Your task to perform on an android device: delete browsing data in the chrome app Image 0: 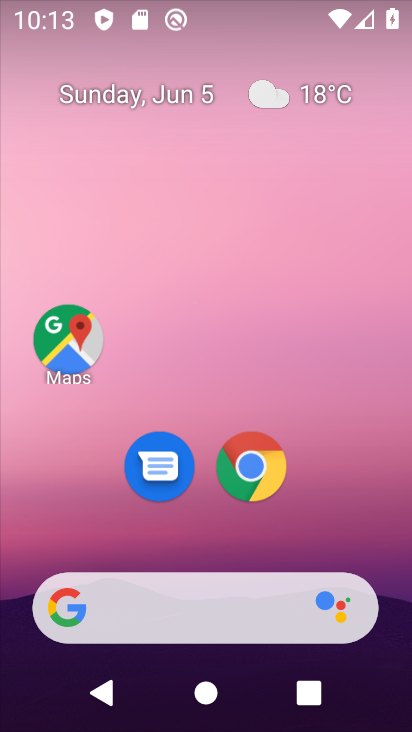
Step 0: click (250, 467)
Your task to perform on an android device: delete browsing data in the chrome app Image 1: 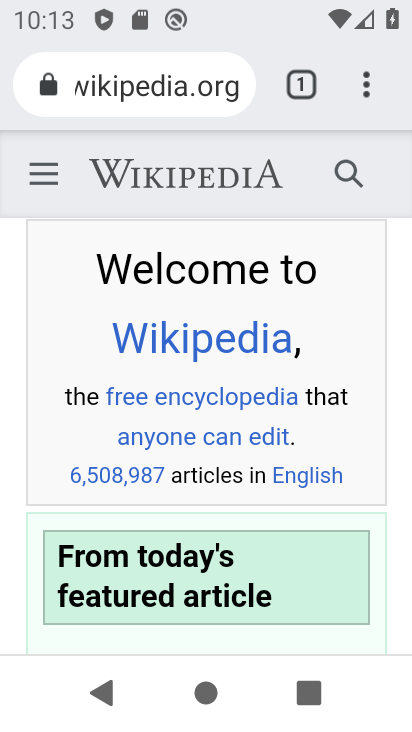
Step 1: click (366, 84)
Your task to perform on an android device: delete browsing data in the chrome app Image 2: 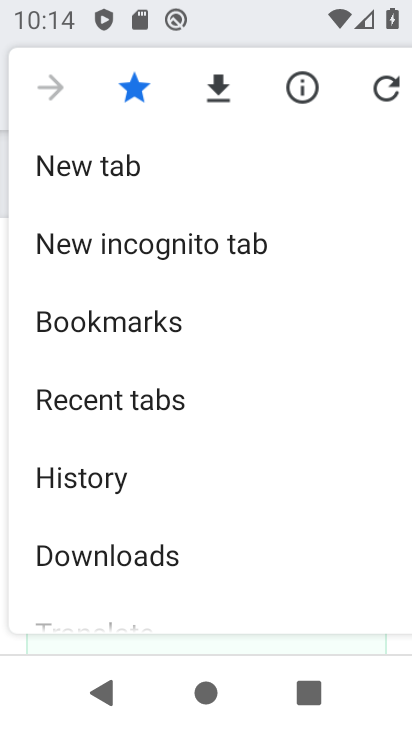
Step 2: drag from (73, 435) to (142, 299)
Your task to perform on an android device: delete browsing data in the chrome app Image 3: 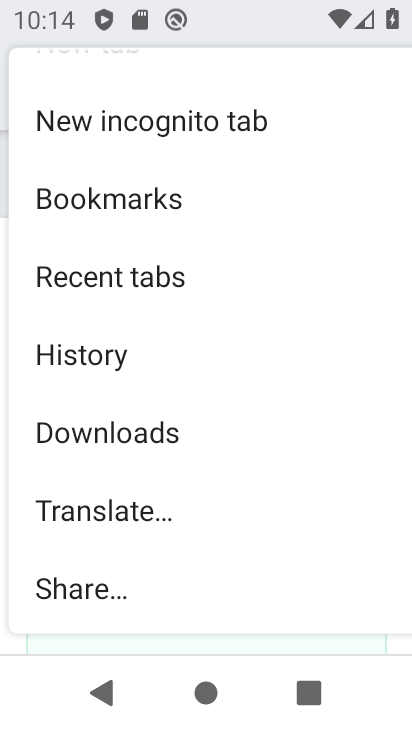
Step 3: drag from (106, 398) to (198, 272)
Your task to perform on an android device: delete browsing data in the chrome app Image 4: 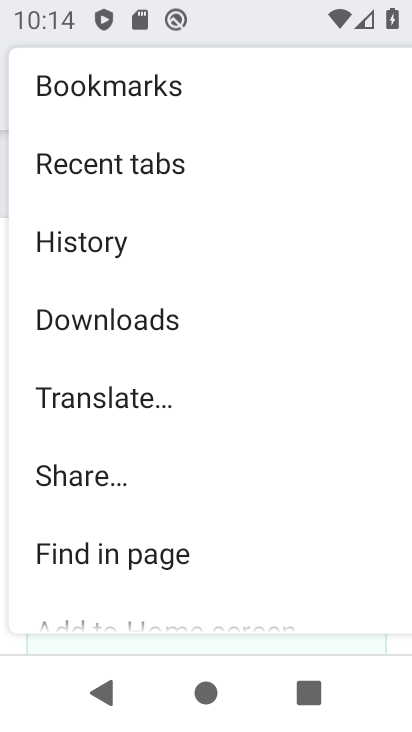
Step 4: drag from (150, 452) to (207, 351)
Your task to perform on an android device: delete browsing data in the chrome app Image 5: 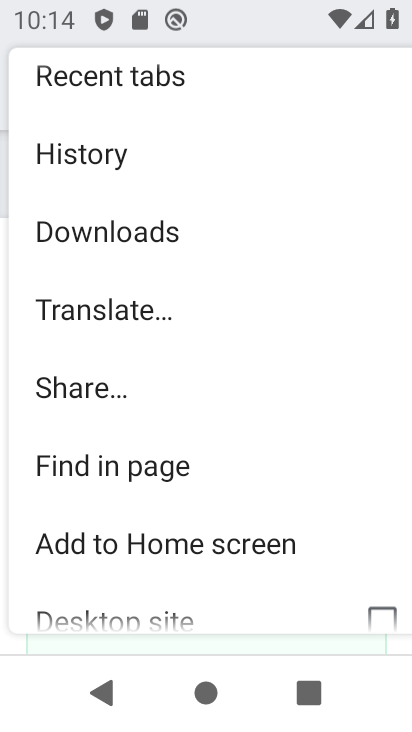
Step 5: drag from (133, 502) to (243, 380)
Your task to perform on an android device: delete browsing data in the chrome app Image 6: 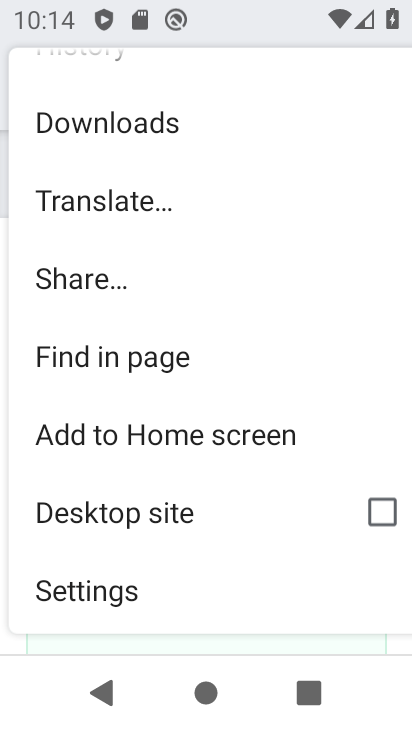
Step 6: drag from (157, 566) to (233, 438)
Your task to perform on an android device: delete browsing data in the chrome app Image 7: 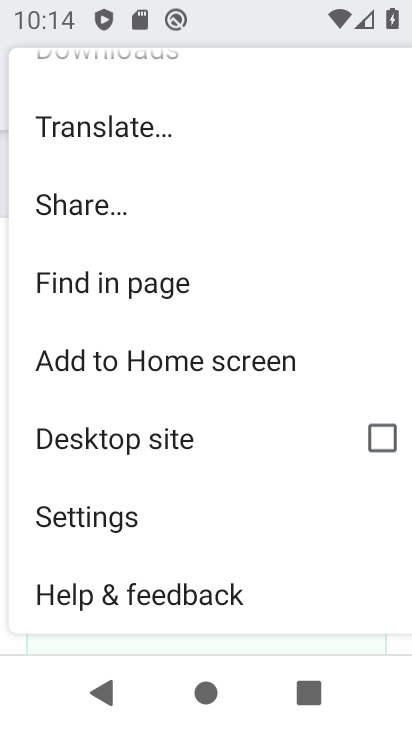
Step 7: click (131, 514)
Your task to perform on an android device: delete browsing data in the chrome app Image 8: 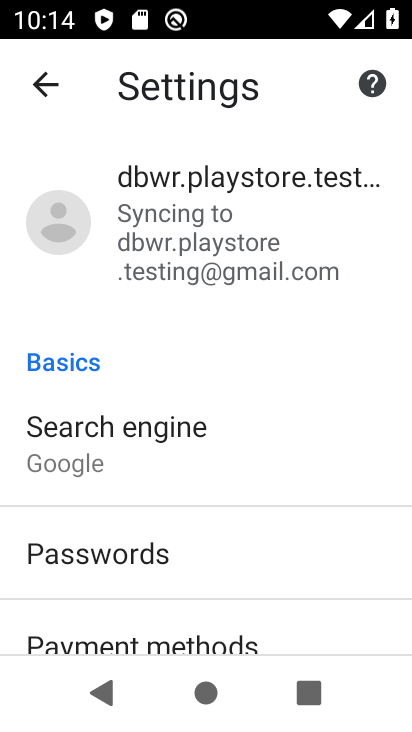
Step 8: drag from (218, 551) to (280, 414)
Your task to perform on an android device: delete browsing data in the chrome app Image 9: 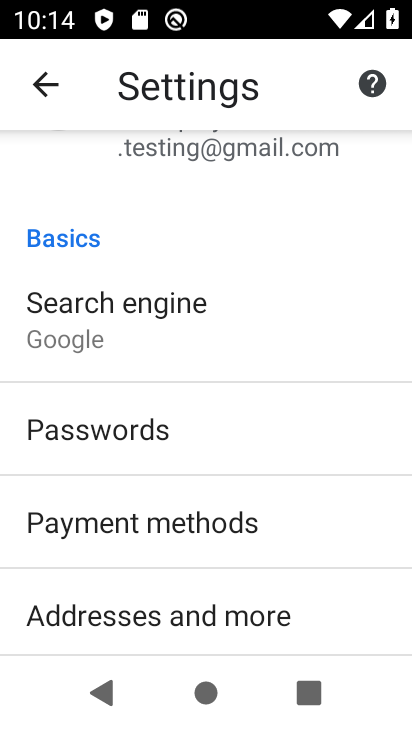
Step 9: drag from (201, 540) to (261, 422)
Your task to perform on an android device: delete browsing data in the chrome app Image 10: 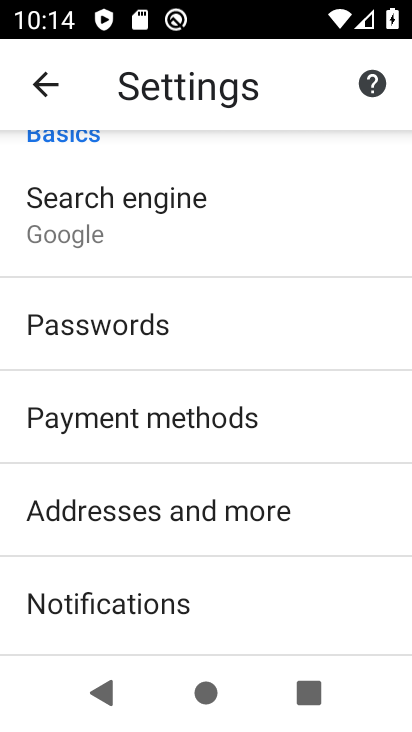
Step 10: drag from (166, 534) to (261, 421)
Your task to perform on an android device: delete browsing data in the chrome app Image 11: 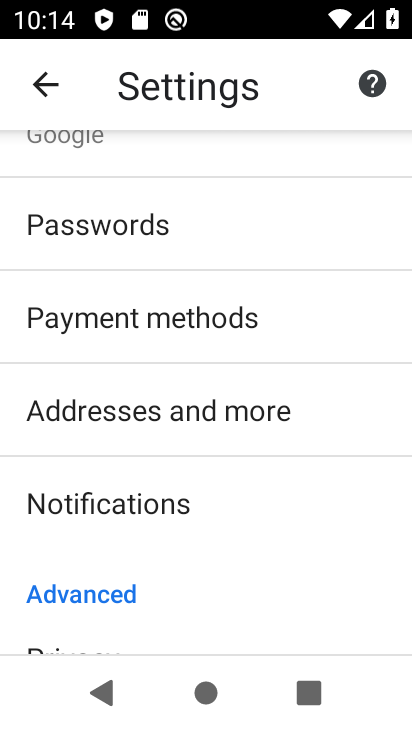
Step 11: drag from (166, 545) to (279, 409)
Your task to perform on an android device: delete browsing data in the chrome app Image 12: 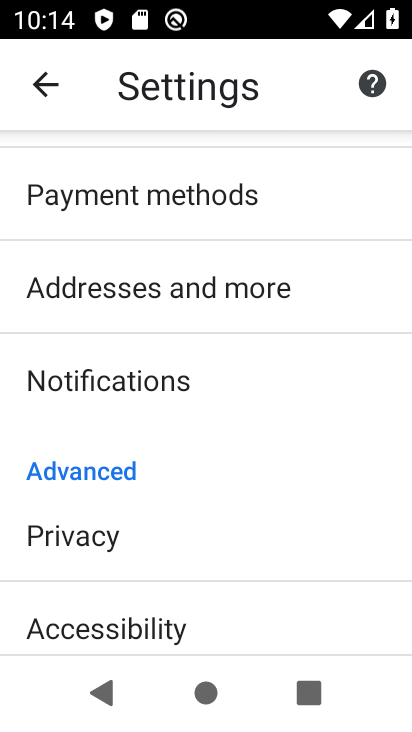
Step 12: click (109, 541)
Your task to perform on an android device: delete browsing data in the chrome app Image 13: 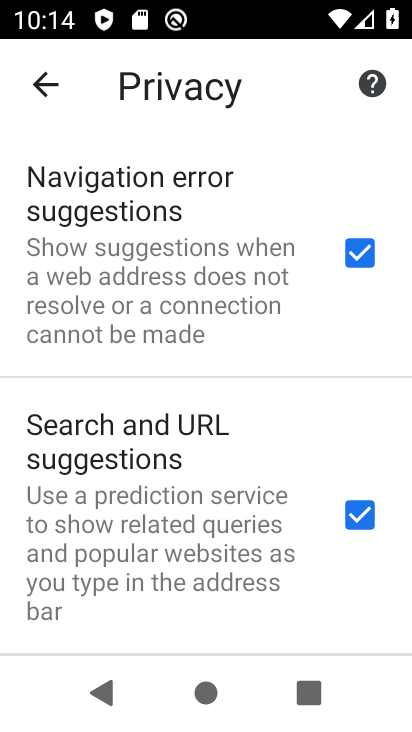
Step 13: drag from (178, 622) to (189, 428)
Your task to perform on an android device: delete browsing data in the chrome app Image 14: 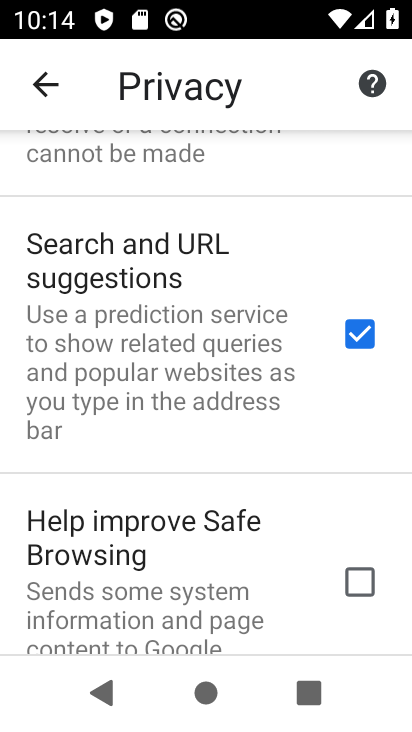
Step 14: drag from (157, 474) to (213, 349)
Your task to perform on an android device: delete browsing data in the chrome app Image 15: 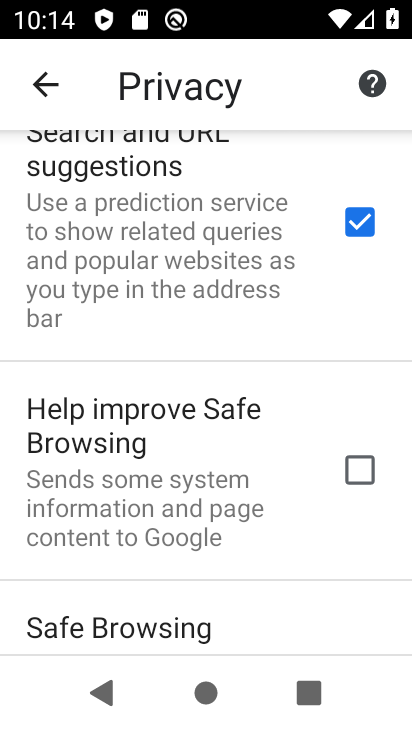
Step 15: drag from (156, 603) to (227, 461)
Your task to perform on an android device: delete browsing data in the chrome app Image 16: 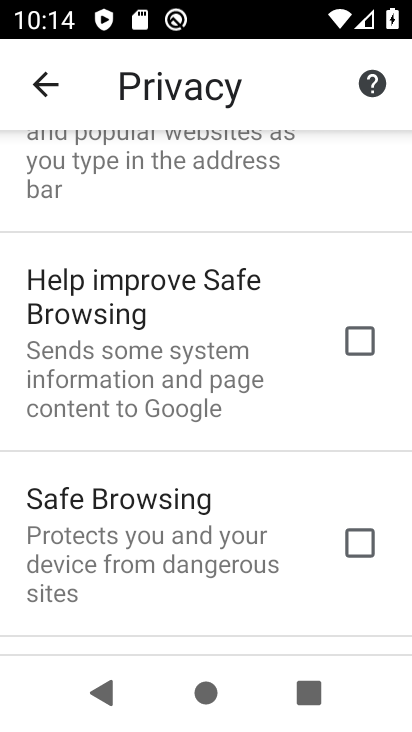
Step 16: drag from (159, 604) to (231, 446)
Your task to perform on an android device: delete browsing data in the chrome app Image 17: 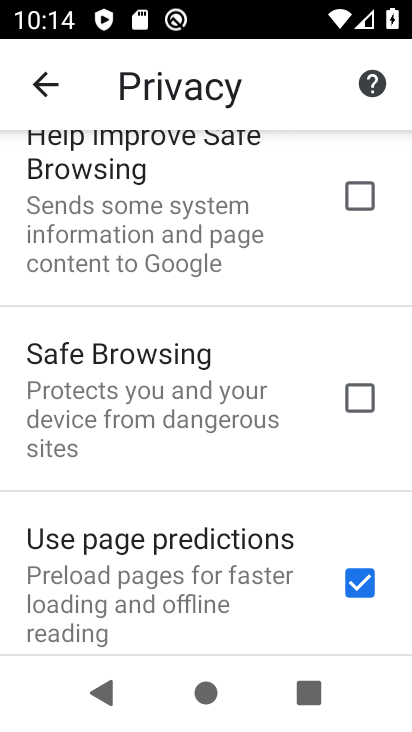
Step 17: drag from (193, 630) to (271, 475)
Your task to perform on an android device: delete browsing data in the chrome app Image 18: 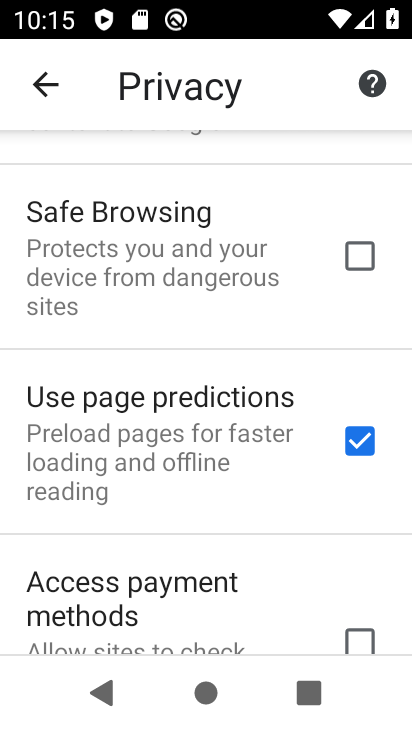
Step 18: drag from (200, 567) to (286, 444)
Your task to perform on an android device: delete browsing data in the chrome app Image 19: 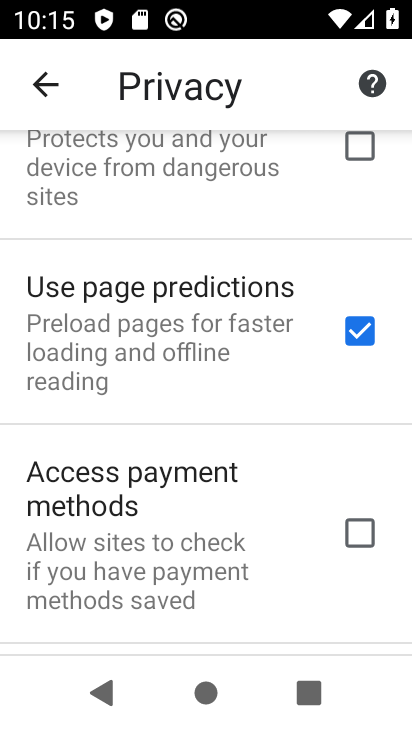
Step 19: drag from (174, 616) to (297, 457)
Your task to perform on an android device: delete browsing data in the chrome app Image 20: 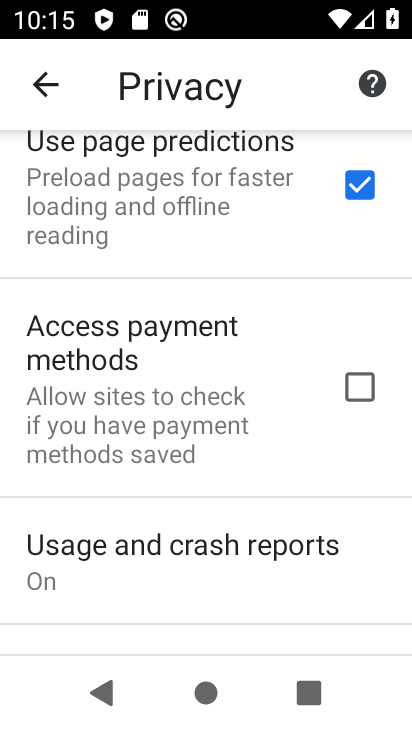
Step 20: drag from (208, 520) to (301, 367)
Your task to perform on an android device: delete browsing data in the chrome app Image 21: 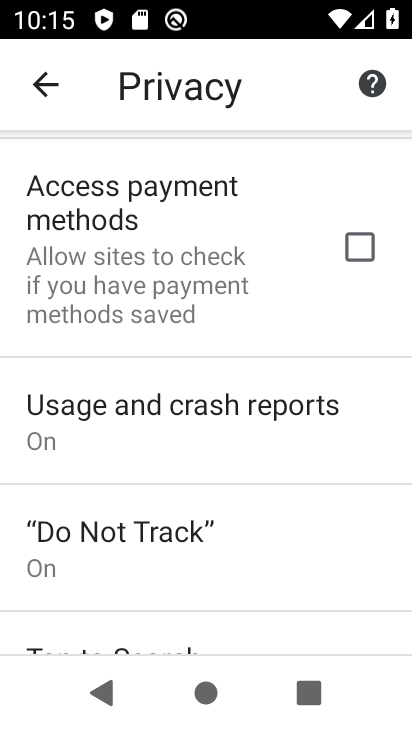
Step 21: drag from (142, 459) to (198, 344)
Your task to perform on an android device: delete browsing data in the chrome app Image 22: 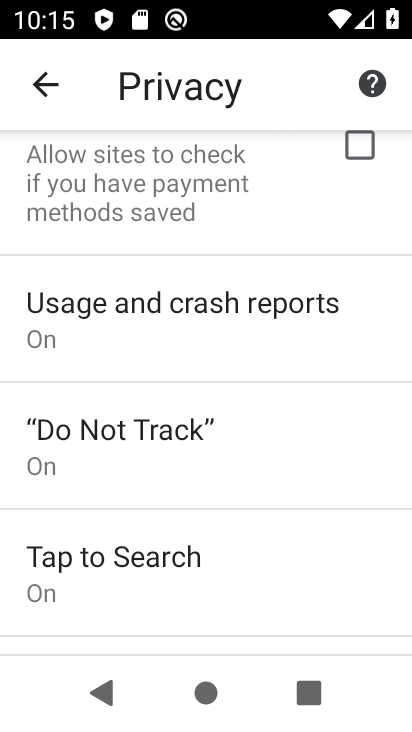
Step 22: drag from (112, 532) to (207, 420)
Your task to perform on an android device: delete browsing data in the chrome app Image 23: 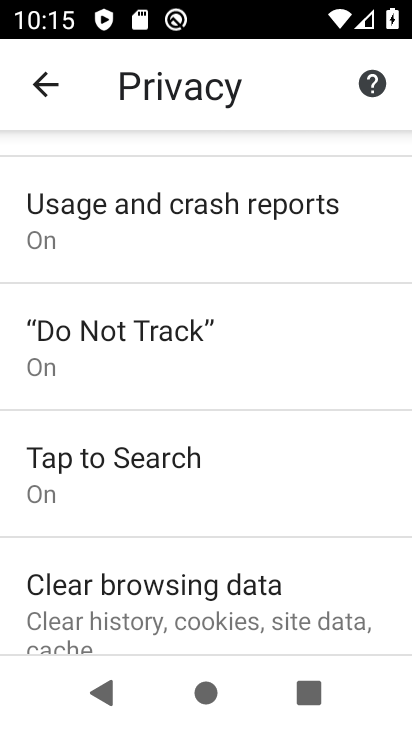
Step 23: drag from (146, 554) to (223, 452)
Your task to perform on an android device: delete browsing data in the chrome app Image 24: 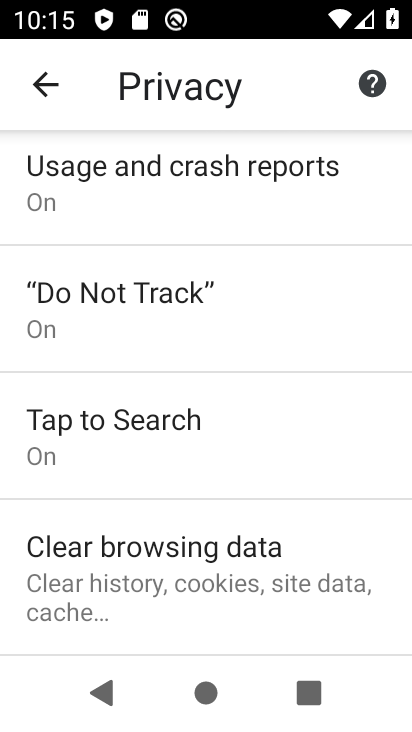
Step 24: click (144, 537)
Your task to perform on an android device: delete browsing data in the chrome app Image 25: 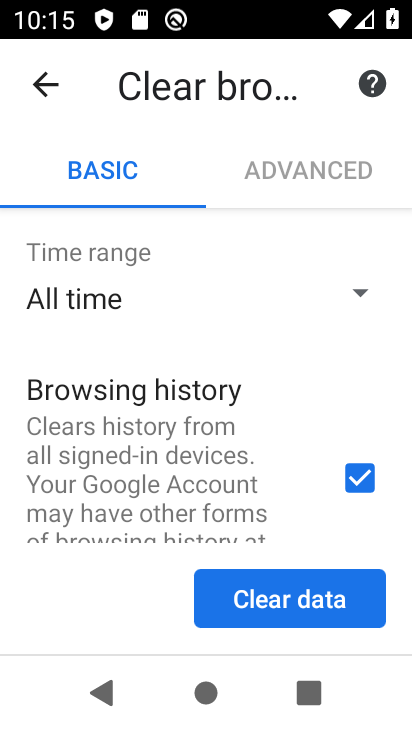
Step 25: click (302, 601)
Your task to perform on an android device: delete browsing data in the chrome app Image 26: 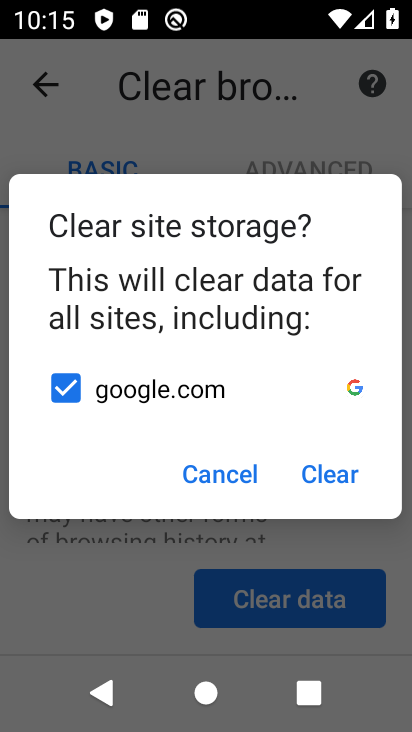
Step 26: click (343, 492)
Your task to perform on an android device: delete browsing data in the chrome app Image 27: 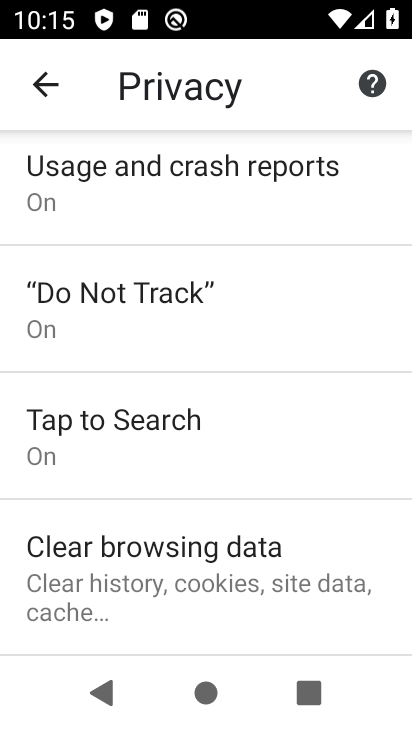
Step 27: task complete